Your task to perform on an android device: Go to sound settings Image 0: 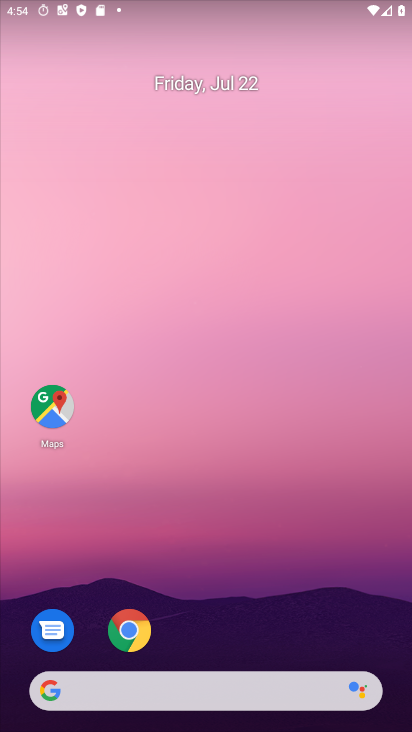
Step 0: drag from (254, 642) to (203, 22)
Your task to perform on an android device: Go to sound settings Image 1: 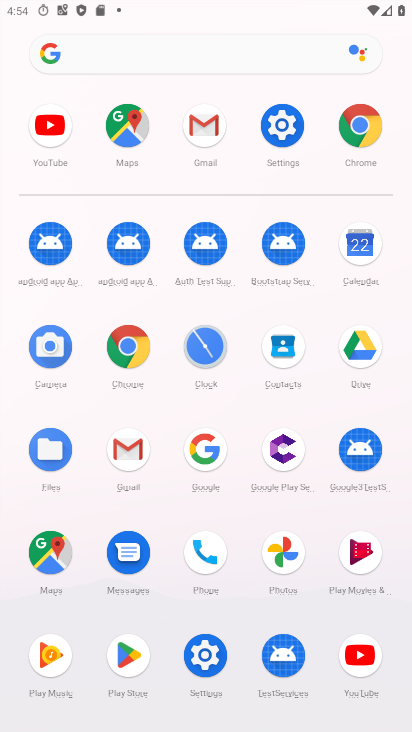
Step 1: click (273, 127)
Your task to perform on an android device: Go to sound settings Image 2: 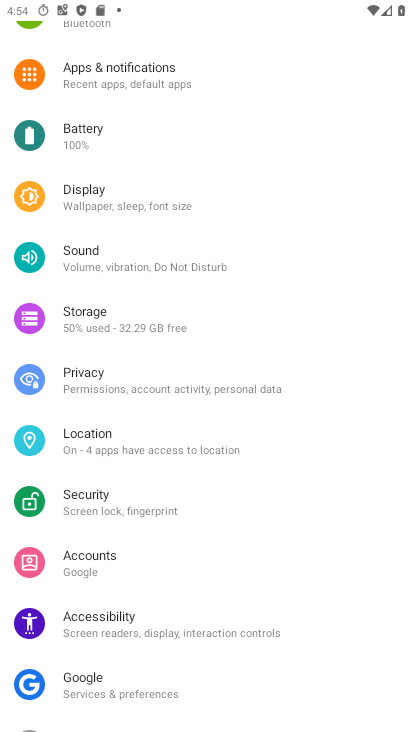
Step 2: click (122, 266)
Your task to perform on an android device: Go to sound settings Image 3: 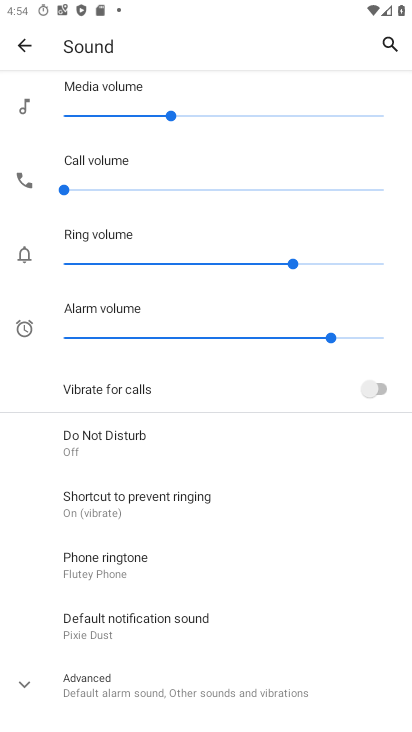
Step 3: task complete